Your task to perform on an android device: What's the news this afternoon? Image 0: 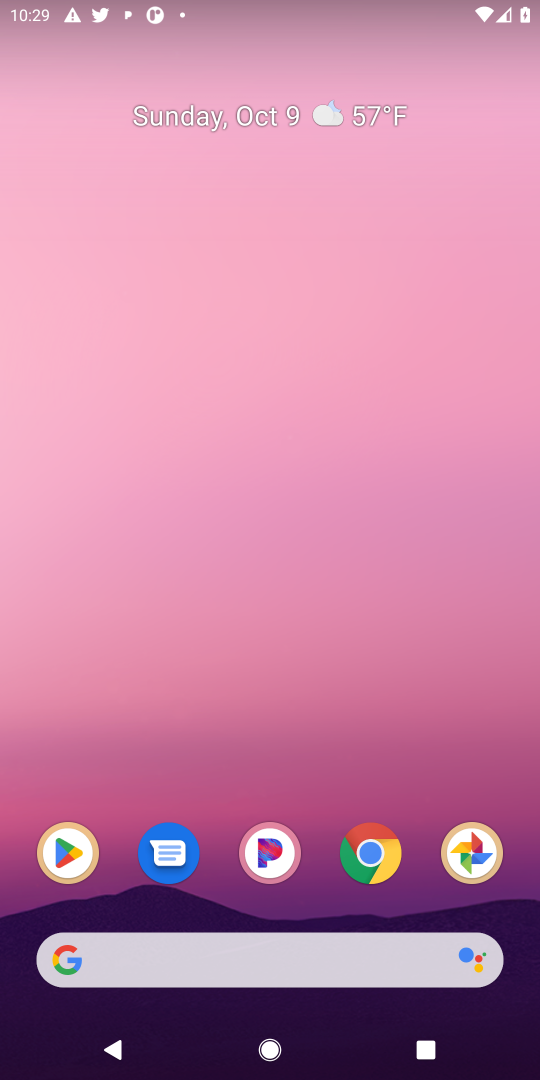
Step 0: click (326, 935)
Your task to perform on an android device: What's the news this afternoon? Image 1: 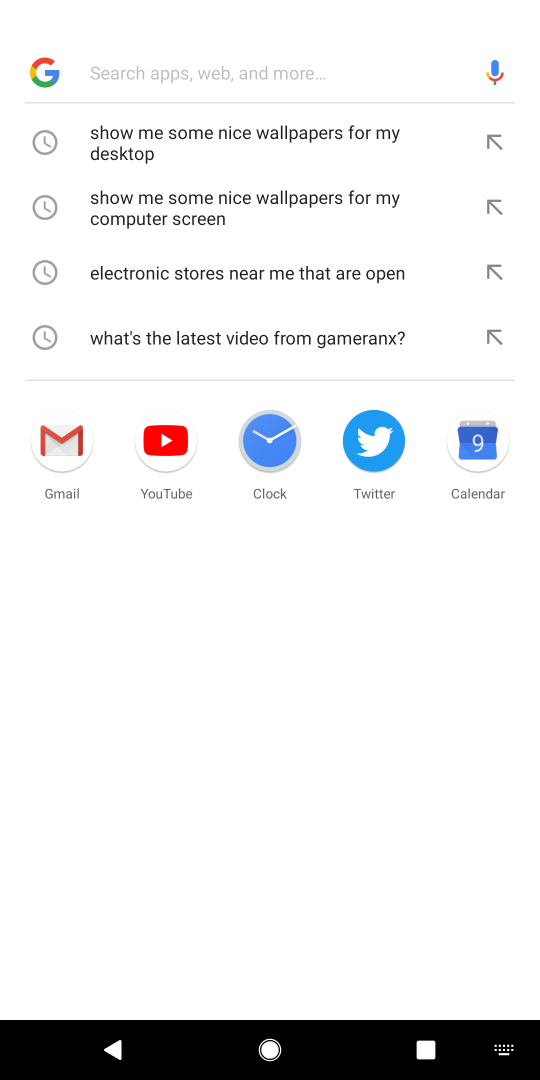
Step 1: type "What's the news this afternoon?"
Your task to perform on an android device: What's the news this afternoon? Image 2: 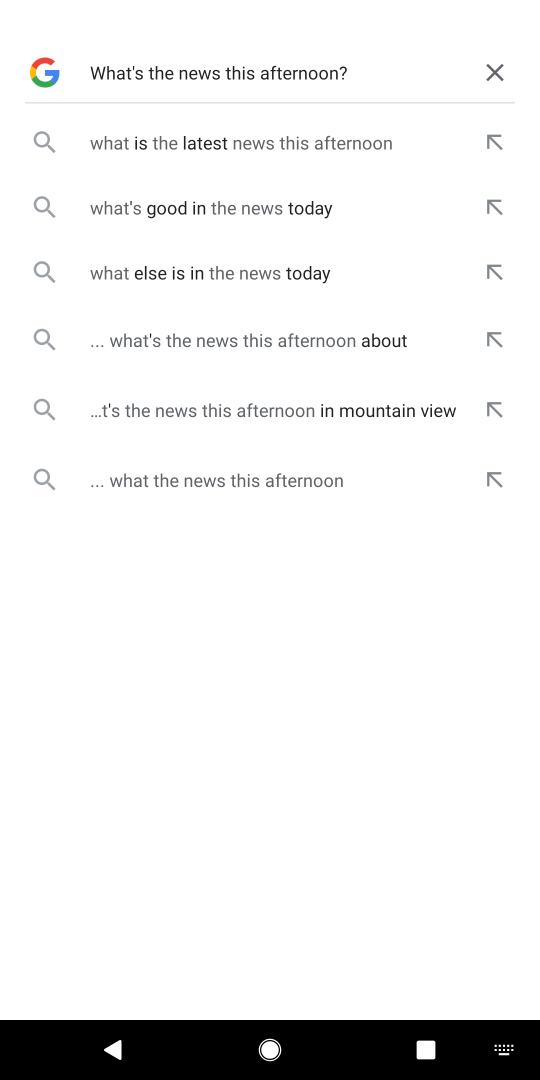
Step 2: type ""
Your task to perform on an android device: What's the news this afternoon? Image 3: 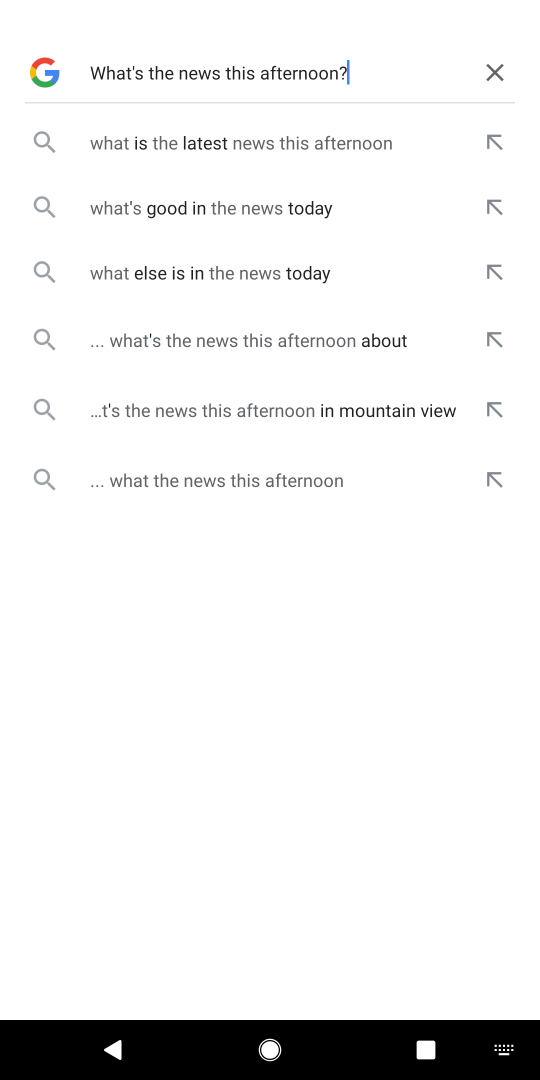
Step 3: press enter
Your task to perform on an android device: What's the news this afternoon? Image 4: 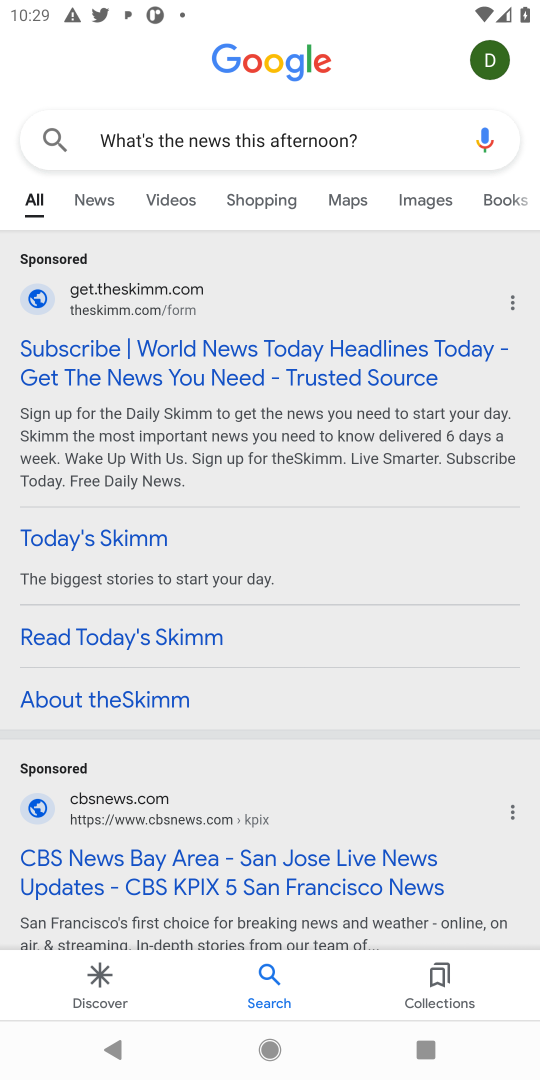
Step 4: click (217, 379)
Your task to perform on an android device: What's the news this afternoon? Image 5: 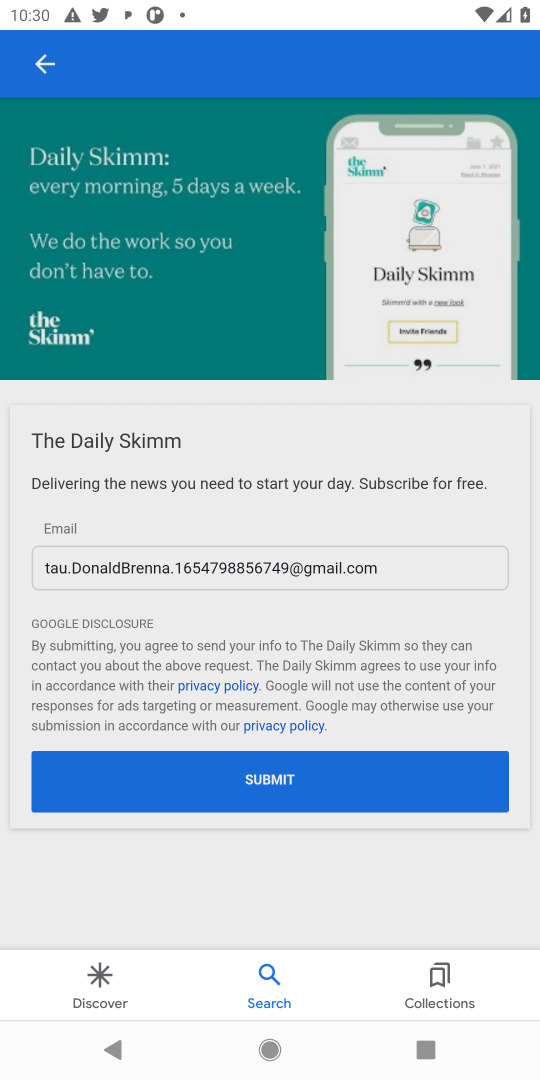
Step 5: drag from (296, 870) to (243, 338)
Your task to perform on an android device: What's the news this afternoon? Image 6: 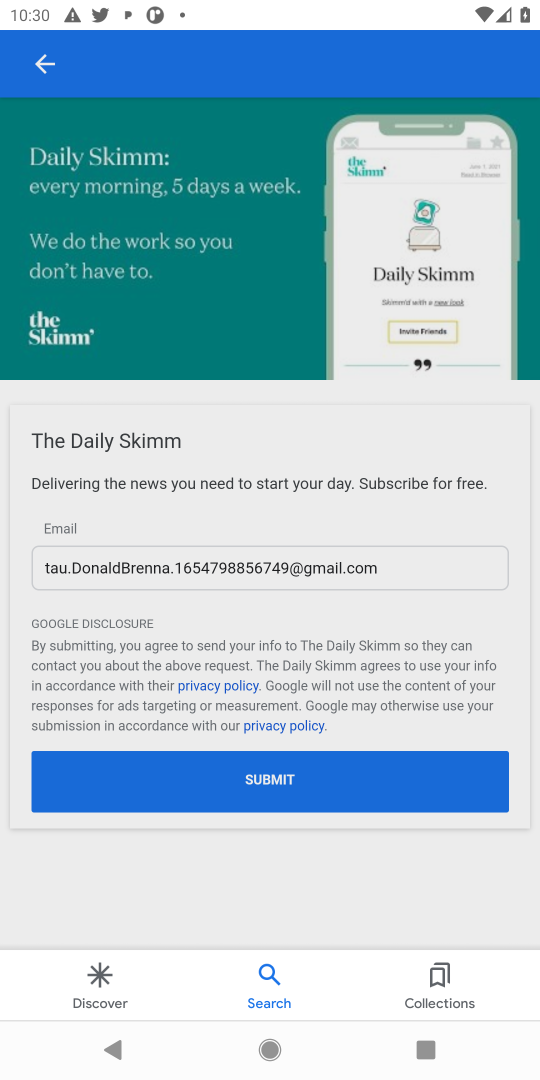
Step 6: drag from (309, 533) to (308, 242)
Your task to perform on an android device: What's the news this afternoon? Image 7: 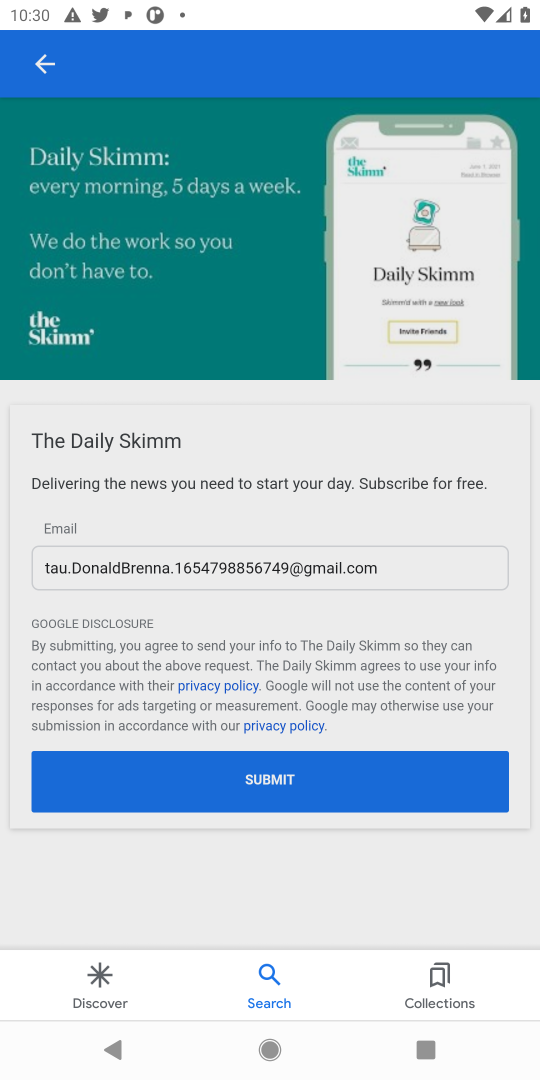
Step 7: click (55, 75)
Your task to perform on an android device: What's the news this afternoon? Image 8: 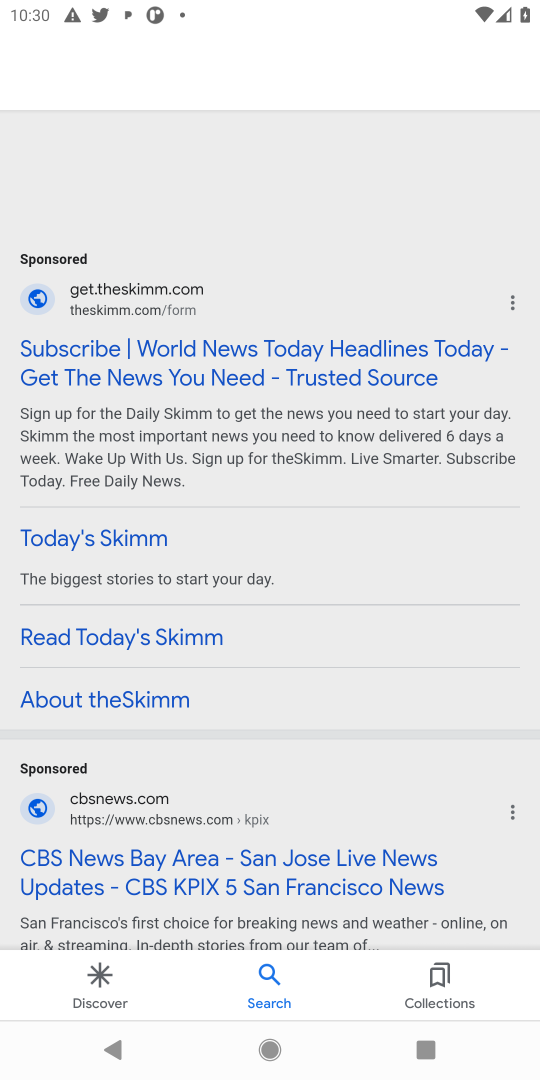
Step 8: press back button
Your task to perform on an android device: What's the news this afternoon? Image 9: 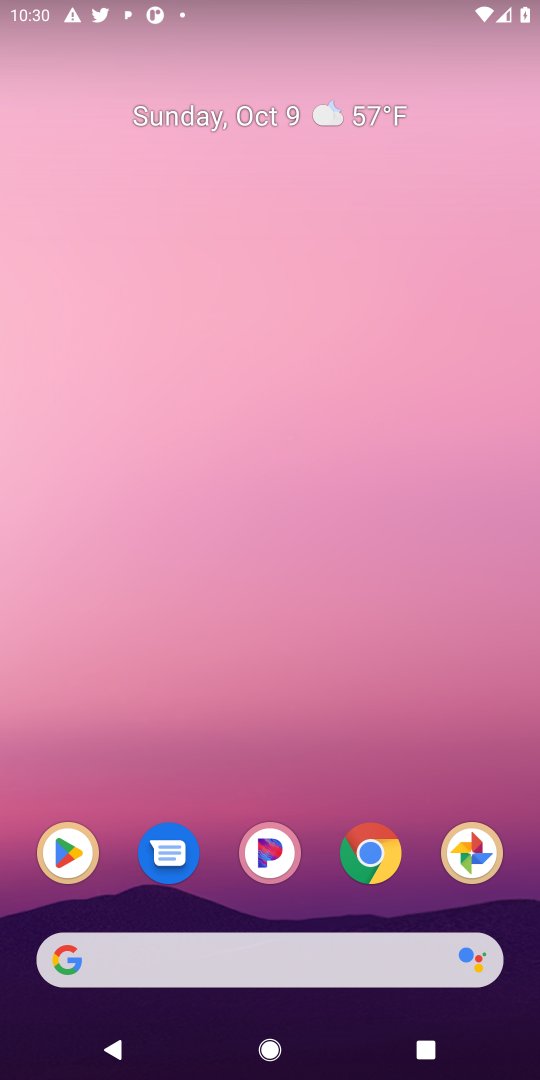
Step 9: click (361, 868)
Your task to perform on an android device: What's the news this afternoon? Image 10: 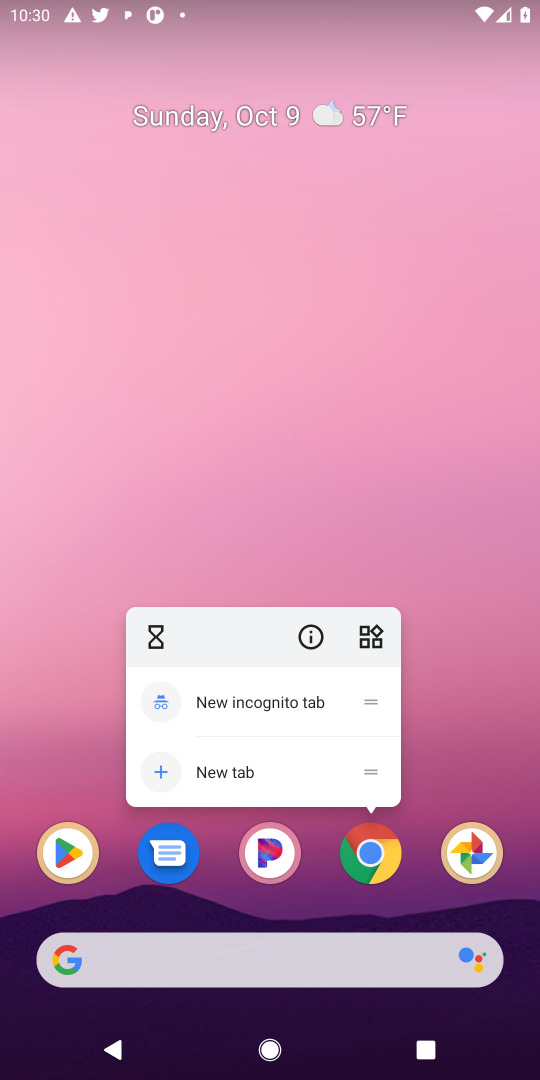
Step 10: click (361, 868)
Your task to perform on an android device: What's the news this afternoon? Image 11: 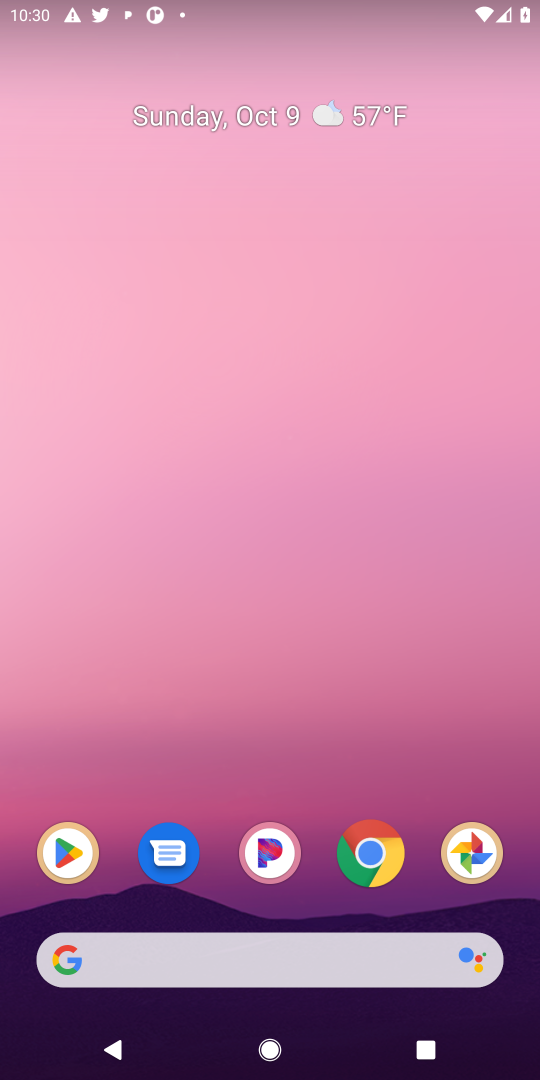
Step 11: click (323, 950)
Your task to perform on an android device: What's the news this afternoon? Image 12: 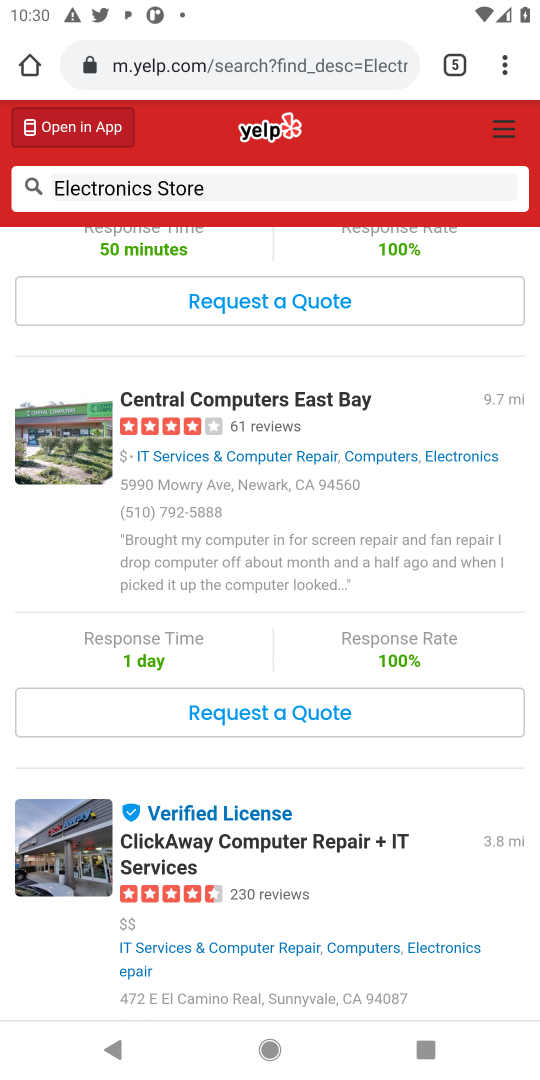
Step 12: click (296, 49)
Your task to perform on an android device: What's the news this afternoon? Image 13: 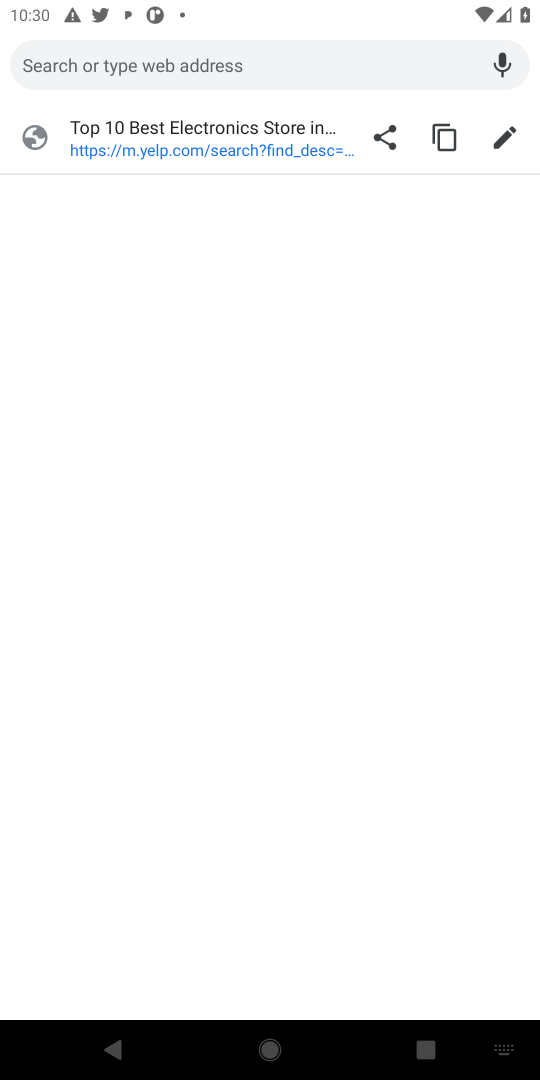
Step 13: type "What's the news this afternoon?"
Your task to perform on an android device: What's the news this afternoon? Image 14: 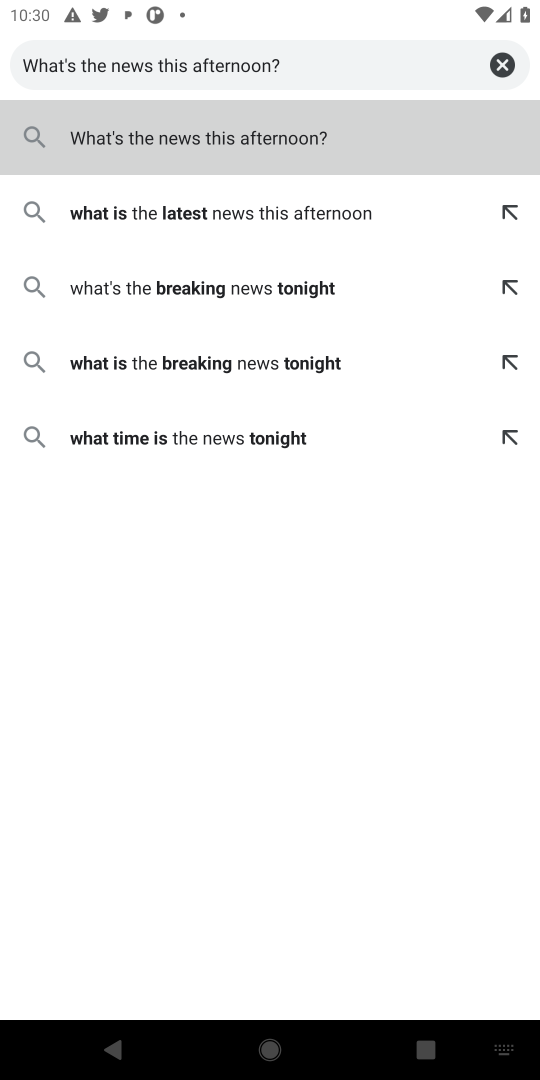
Step 14: type ""
Your task to perform on an android device: What's the news this afternoon? Image 15: 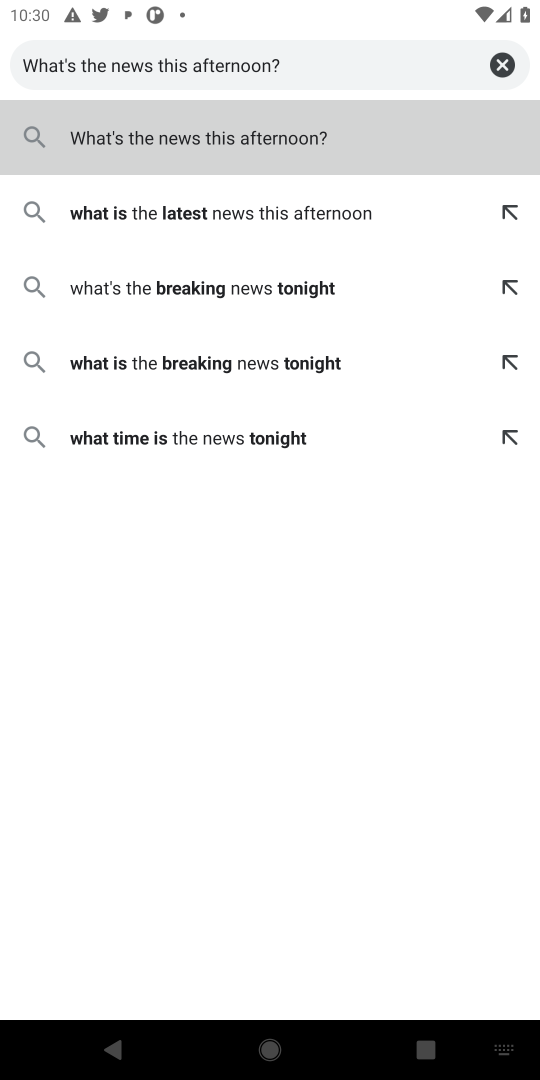
Step 15: press enter
Your task to perform on an android device: What's the news this afternoon? Image 16: 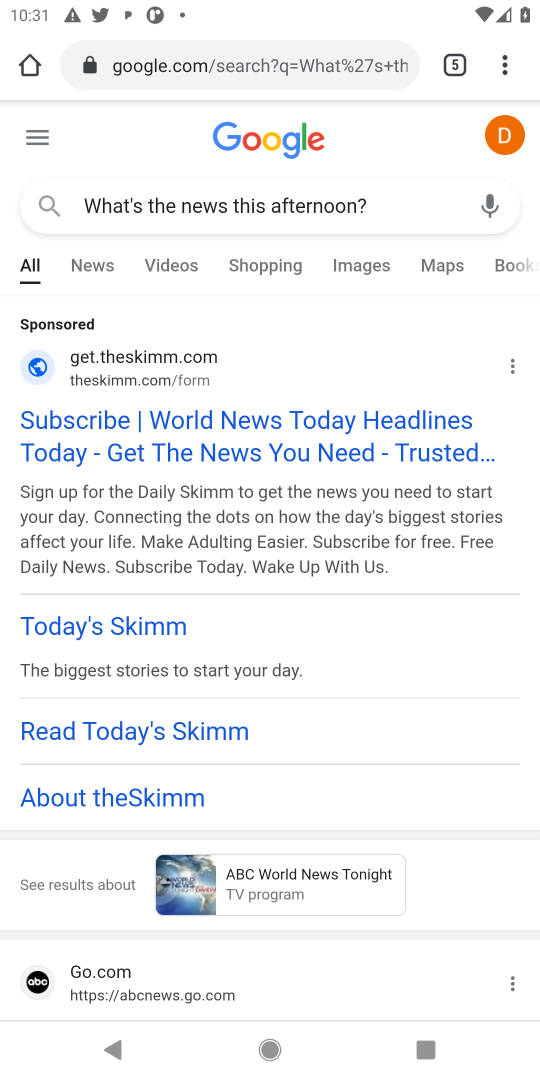
Step 16: drag from (285, 832) to (311, 437)
Your task to perform on an android device: What's the news this afternoon? Image 17: 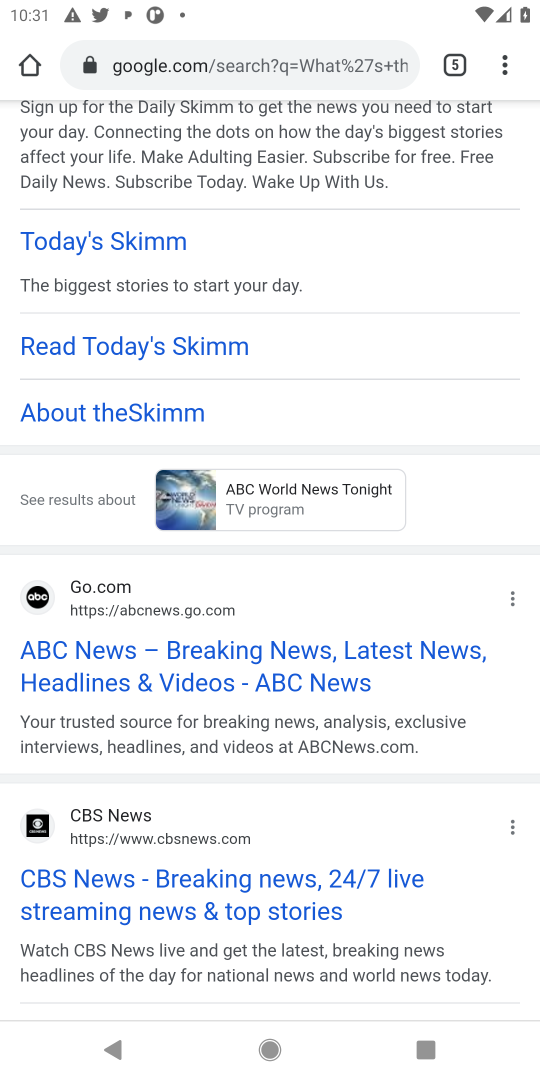
Step 17: click (341, 651)
Your task to perform on an android device: What's the news this afternoon? Image 18: 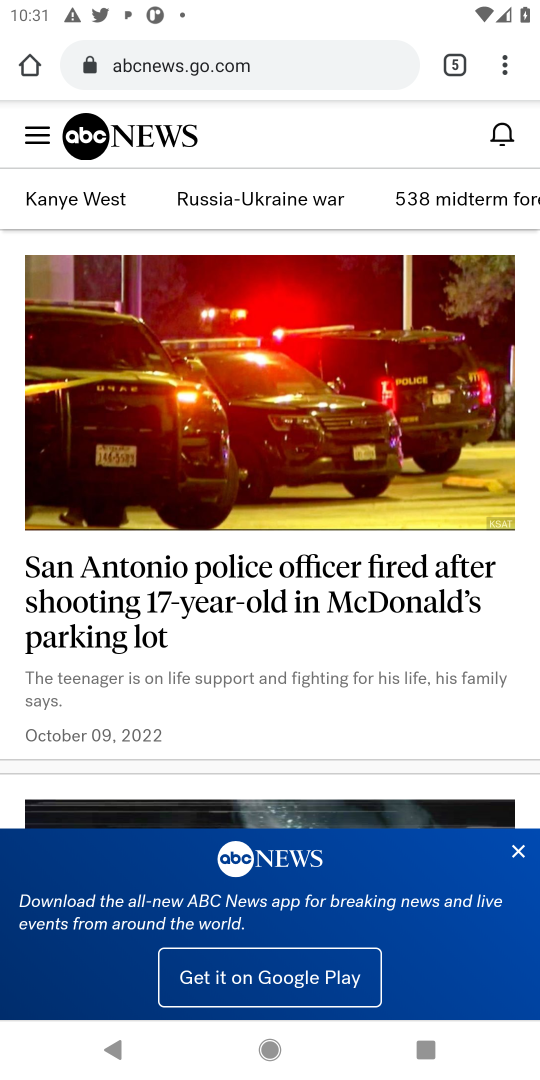
Step 18: task complete